Your task to perform on an android device: install app "DoorDash - Dasher" Image 0: 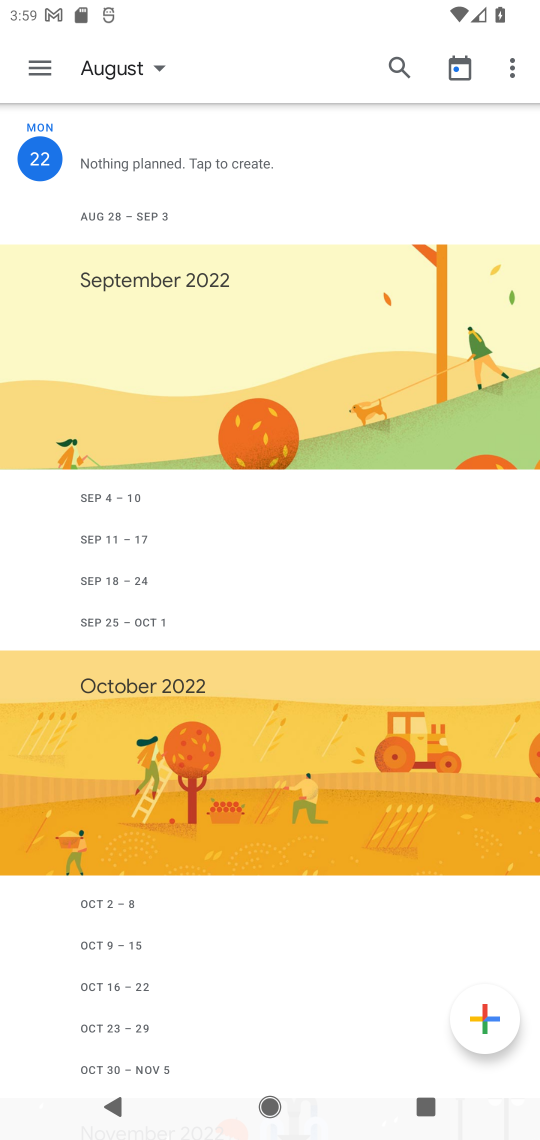
Step 0: press home button
Your task to perform on an android device: install app "DoorDash - Dasher" Image 1: 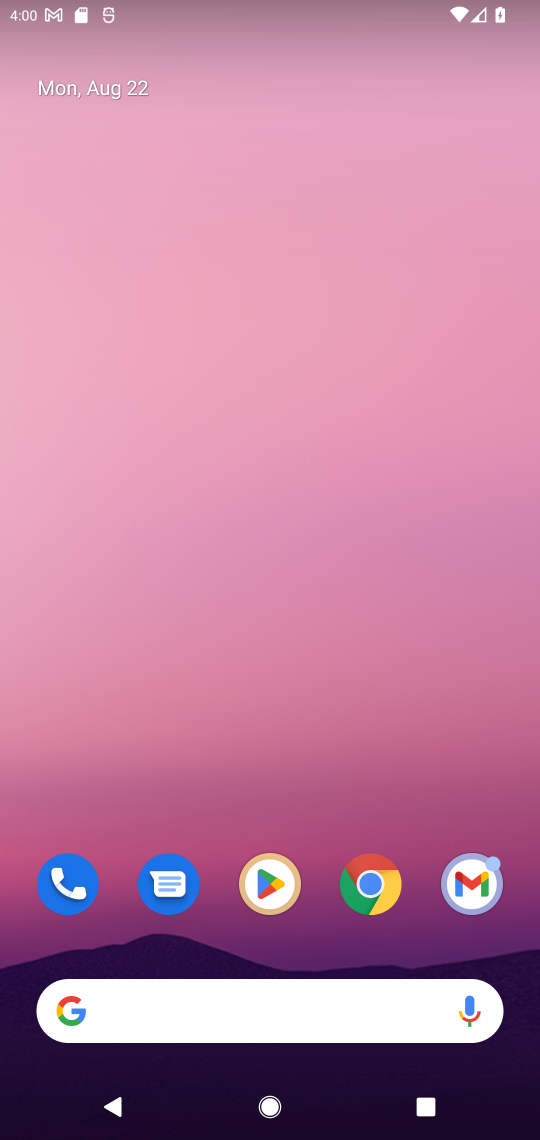
Step 1: click (285, 885)
Your task to perform on an android device: install app "DoorDash - Dasher" Image 2: 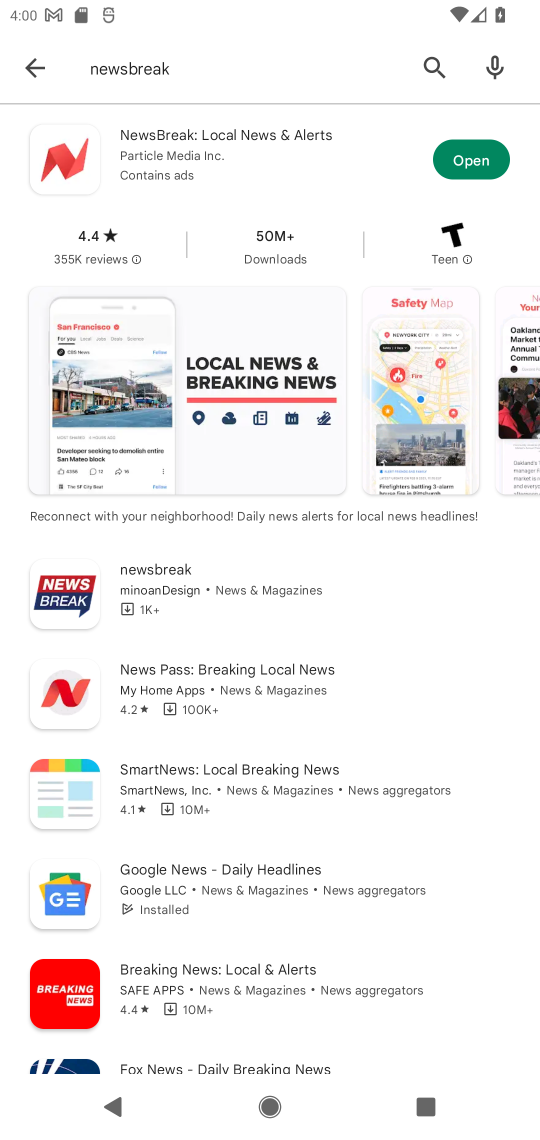
Step 2: click (205, 62)
Your task to perform on an android device: install app "DoorDash - Dasher" Image 3: 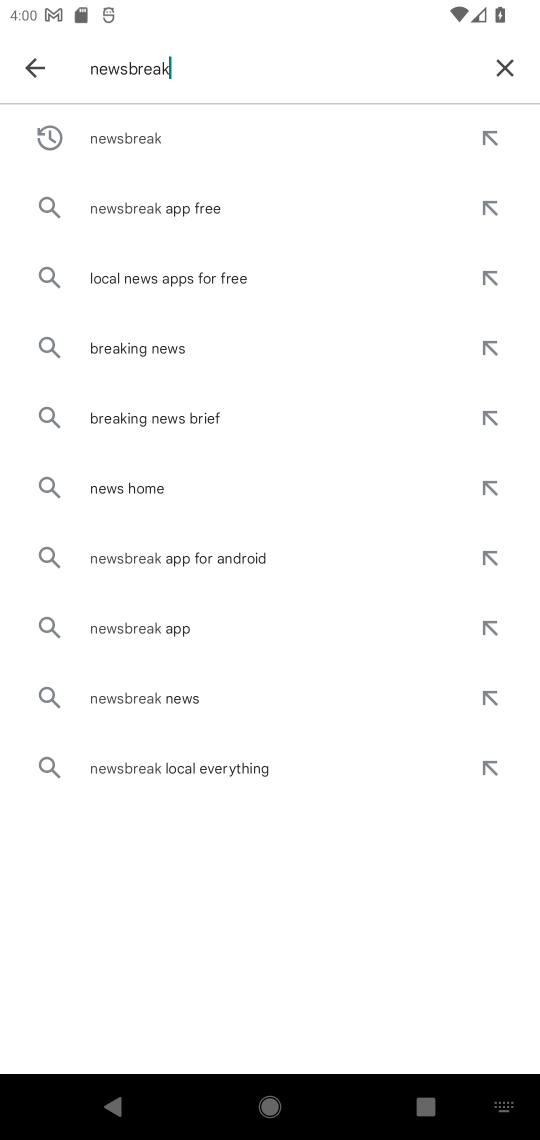
Step 3: click (492, 61)
Your task to perform on an android device: install app "DoorDash - Dasher" Image 4: 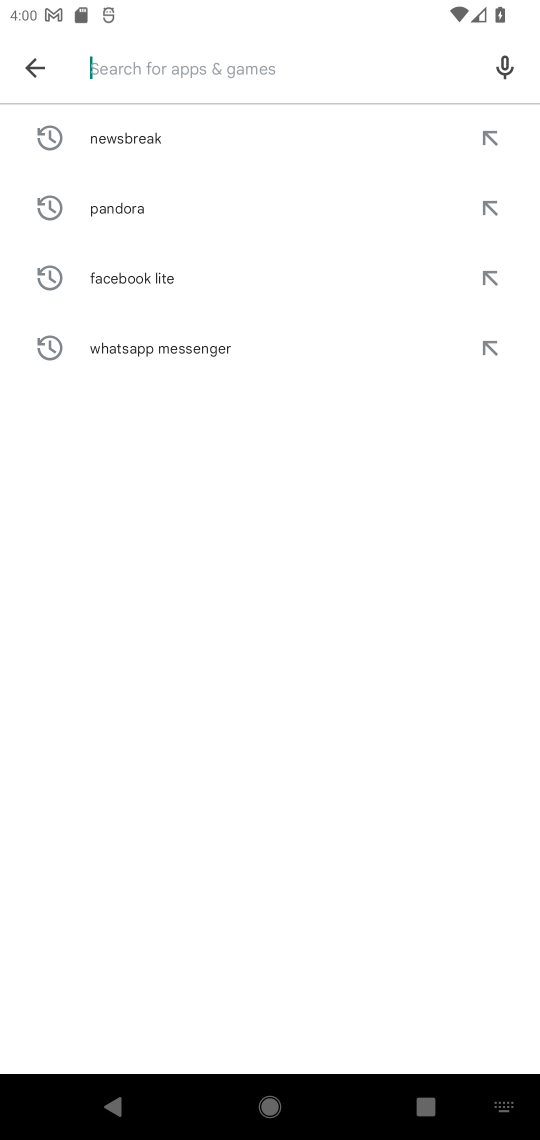
Step 4: type "DoorDash - Dasher"
Your task to perform on an android device: install app "DoorDash - Dasher" Image 5: 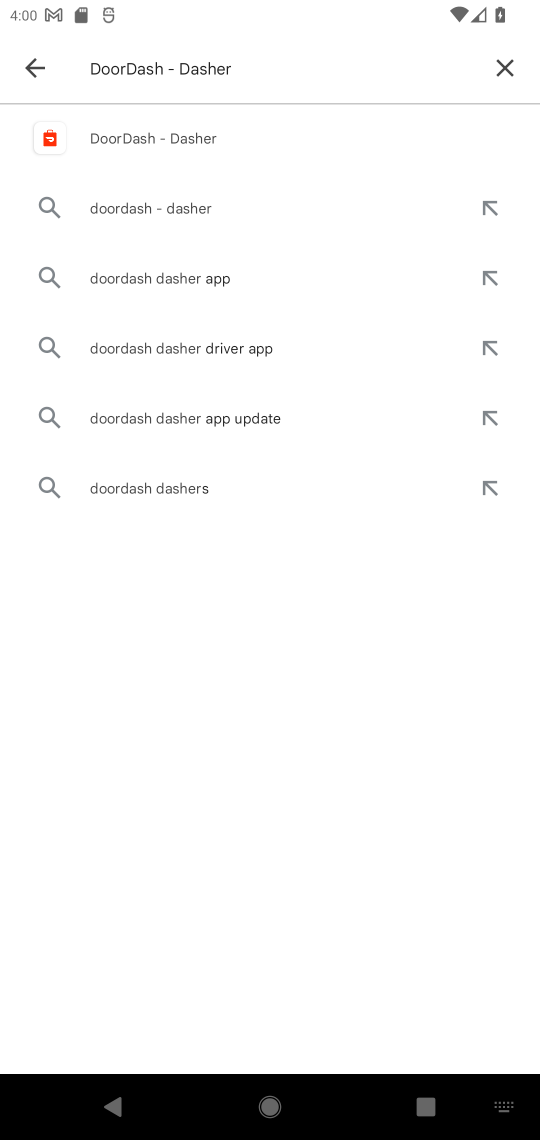
Step 5: click (157, 126)
Your task to perform on an android device: install app "DoorDash - Dasher" Image 6: 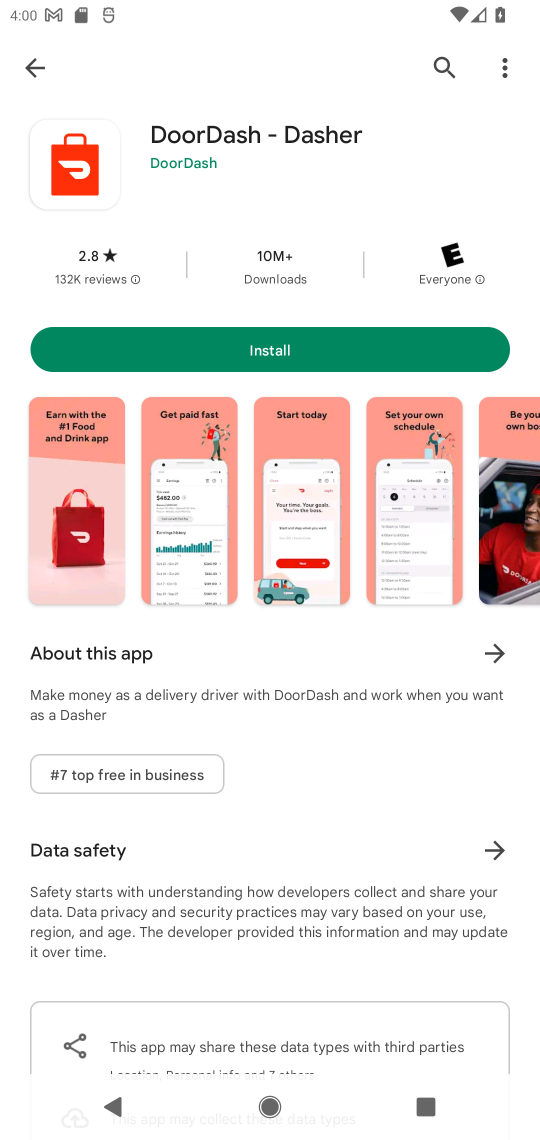
Step 6: click (352, 363)
Your task to perform on an android device: install app "DoorDash - Dasher" Image 7: 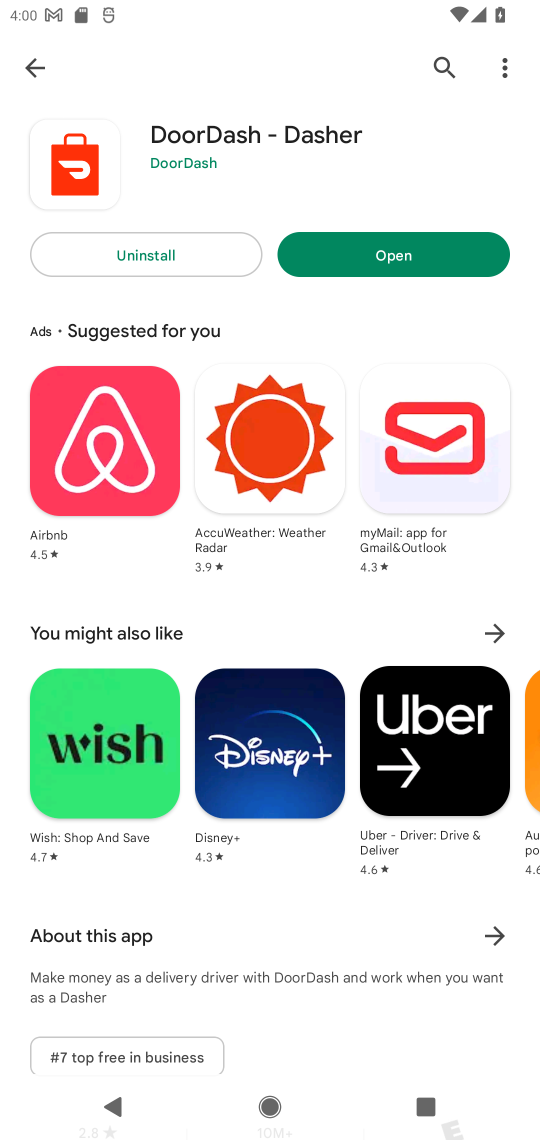
Step 7: task complete